Your task to perform on an android device: Open Wikipedia Image 0: 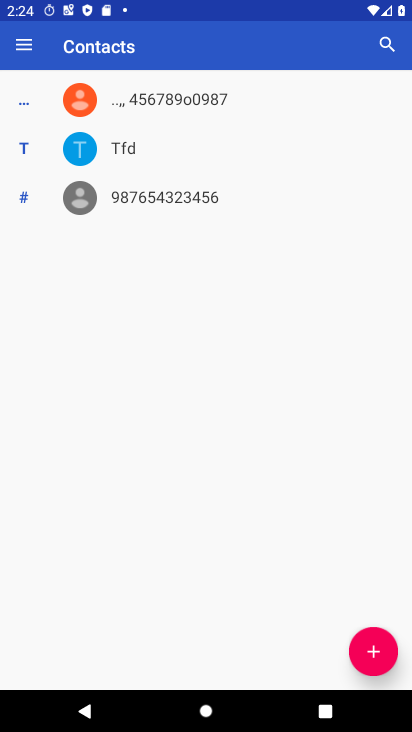
Step 0: press home button
Your task to perform on an android device: Open Wikipedia Image 1: 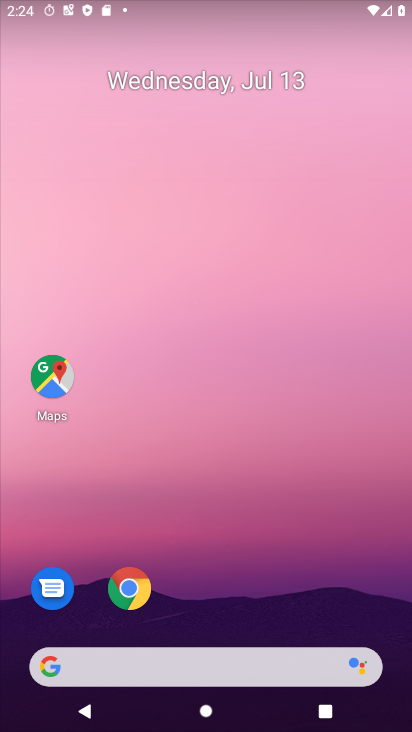
Step 1: drag from (209, 645) to (232, 235)
Your task to perform on an android device: Open Wikipedia Image 2: 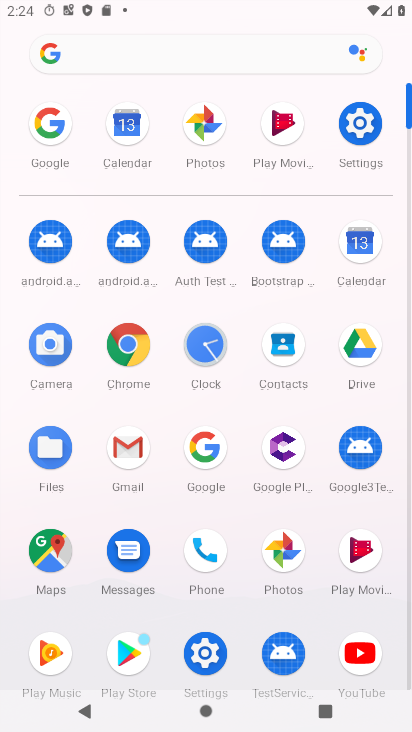
Step 2: click (123, 349)
Your task to perform on an android device: Open Wikipedia Image 3: 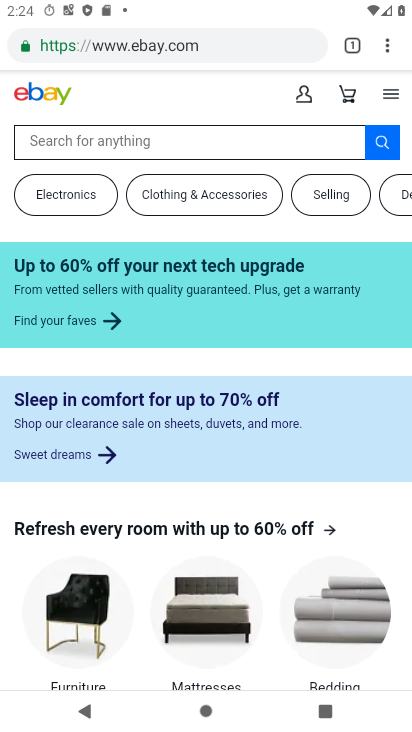
Step 3: click (354, 45)
Your task to perform on an android device: Open Wikipedia Image 4: 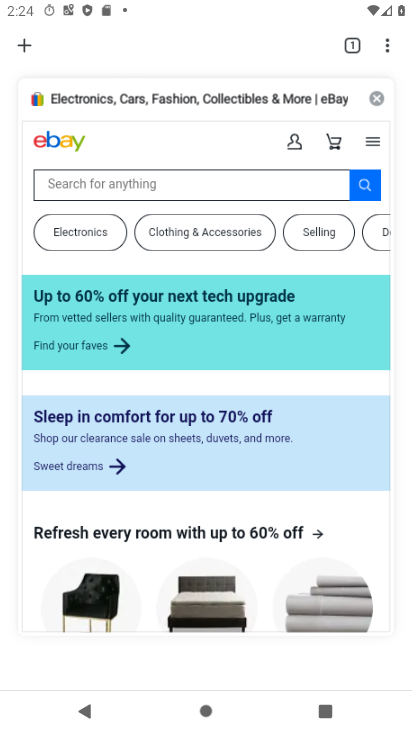
Step 4: click (374, 92)
Your task to perform on an android device: Open Wikipedia Image 5: 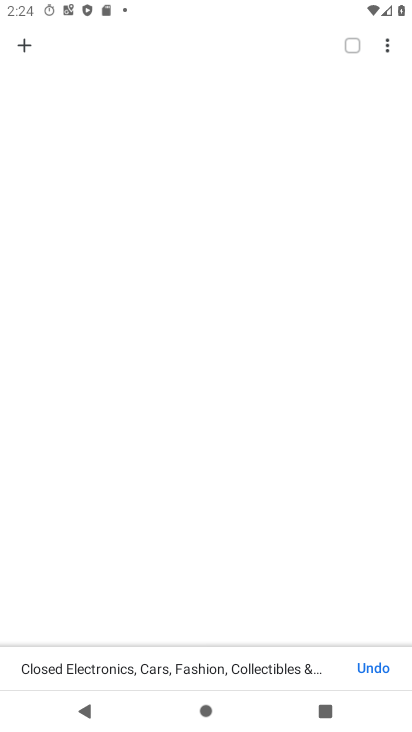
Step 5: click (21, 44)
Your task to perform on an android device: Open Wikipedia Image 6: 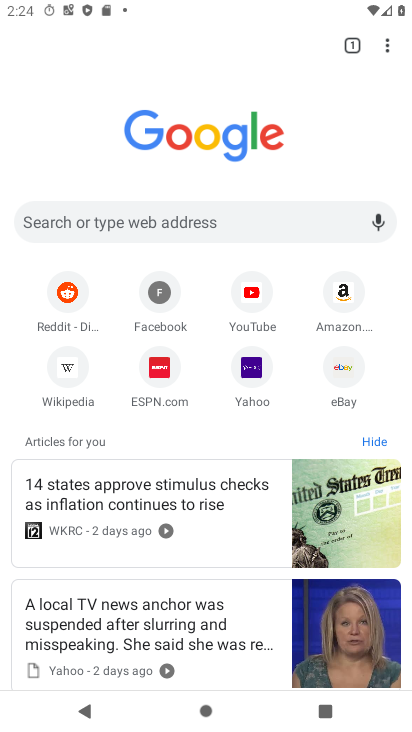
Step 6: click (62, 375)
Your task to perform on an android device: Open Wikipedia Image 7: 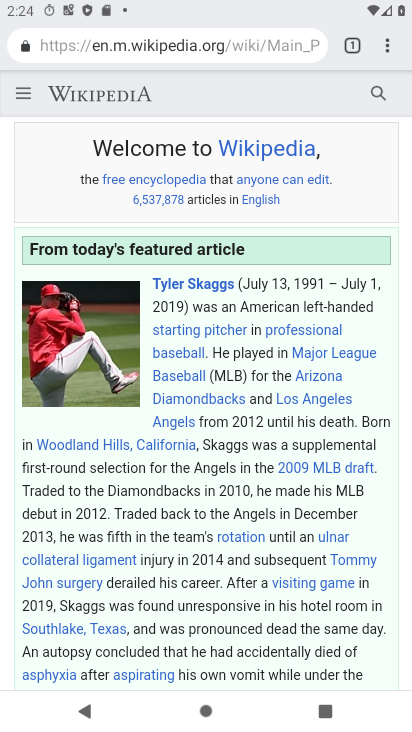
Step 7: task complete